Your task to perform on an android device: Go to Yahoo.com Image 0: 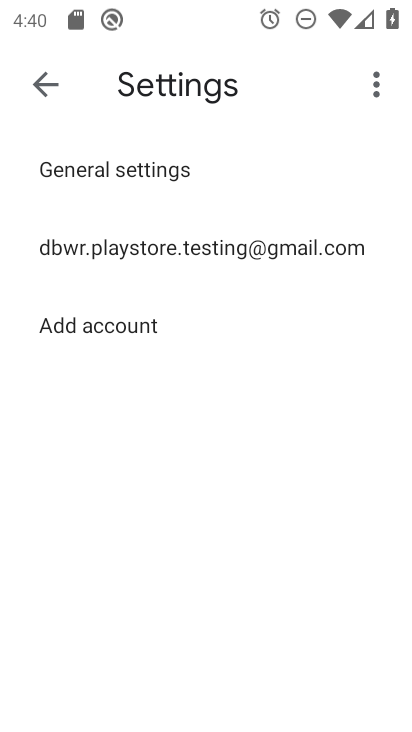
Step 0: press back button
Your task to perform on an android device: Go to Yahoo.com Image 1: 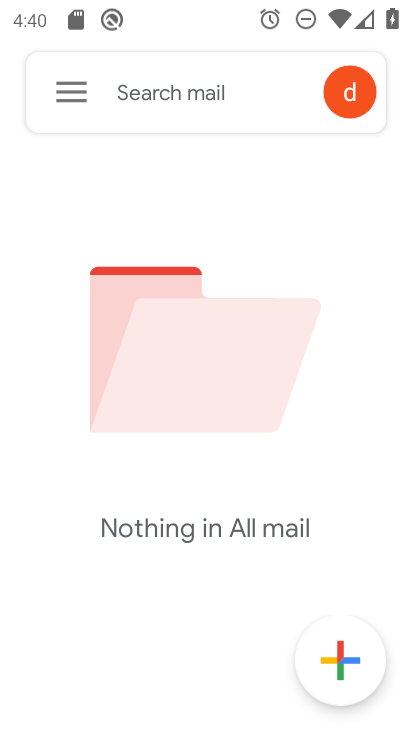
Step 1: press home button
Your task to perform on an android device: Go to Yahoo.com Image 2: 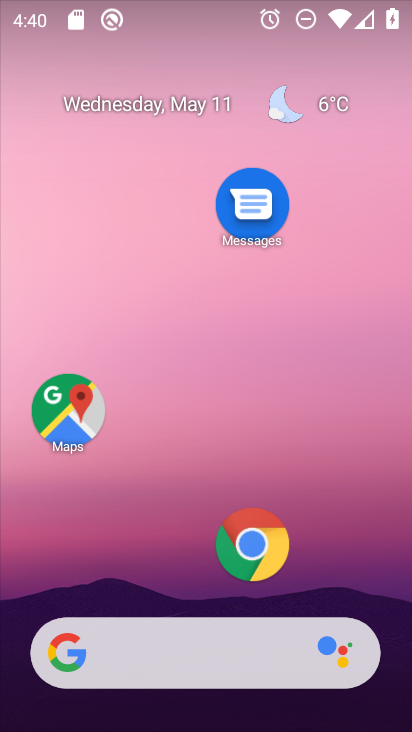
Step 2: click (232, 544)
Your task to perform on an android device: Go to Yahoo.com Image 3: 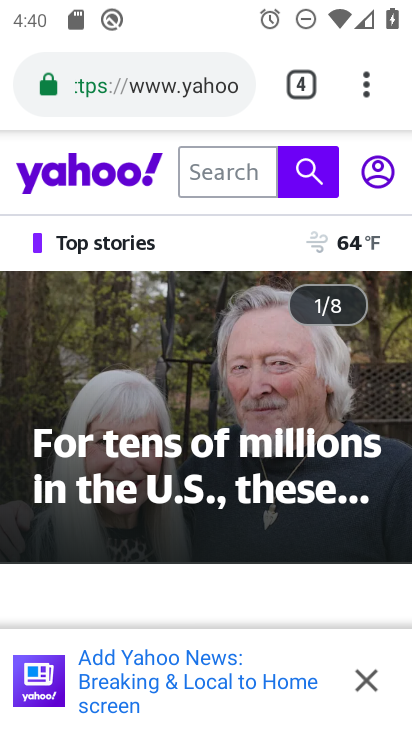
Step 3: task complete